Your task to perform on an android device: turn on the 24-hour format for clock Image 0: 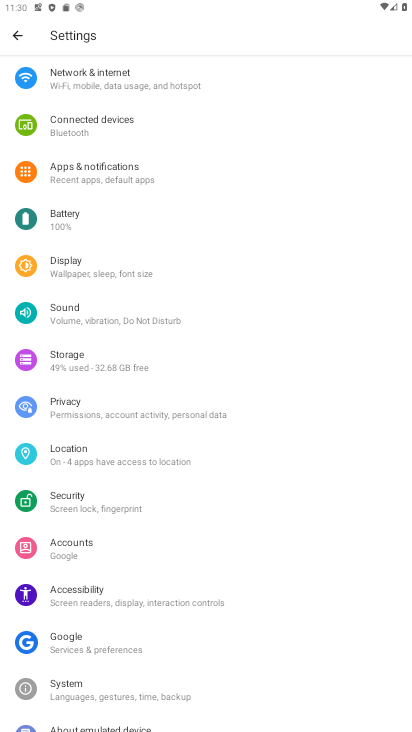
Step 0: press home button
Your task to perform on an android device: turn on the 24-hour format for clock Image 1: 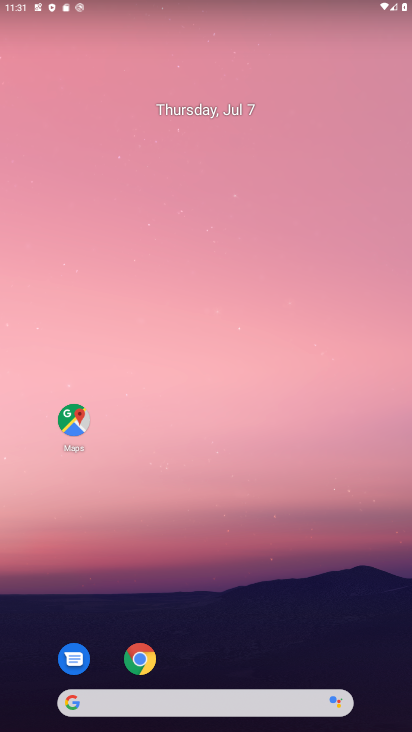
Step 1: drag from (262, 652) to (226, 117)
Your task to perform on an android device: turn on the 24-hour format for clock Image 2: 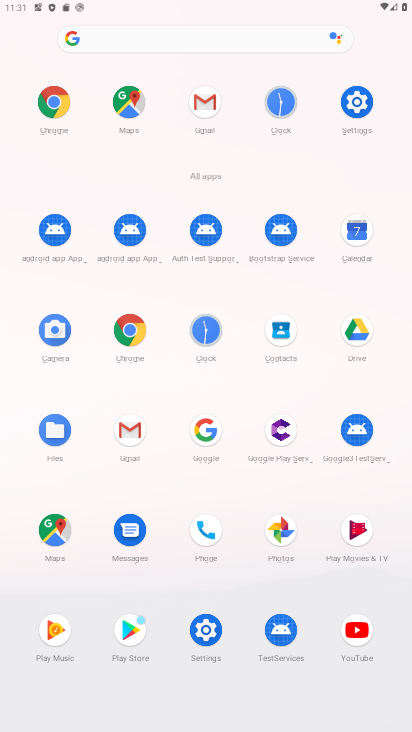
Step 2: click (277, 94)
Your task to perform on an android device: turn on the 24-hour format for clock Image 3: 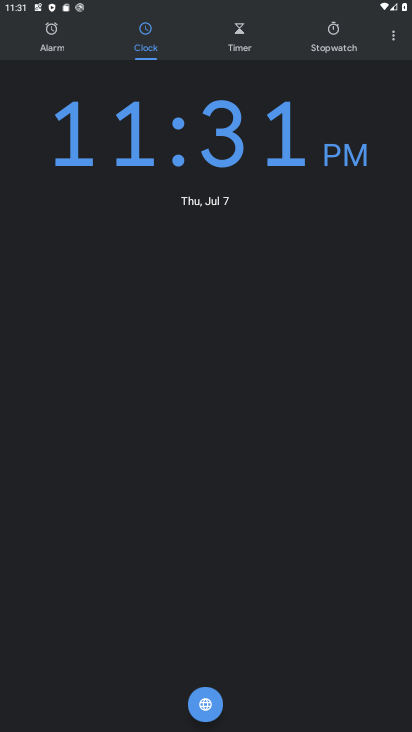
Step 3: click (395, 46)
Your task to perform on an android device: turn on the 24-hour format for clock Image 4: 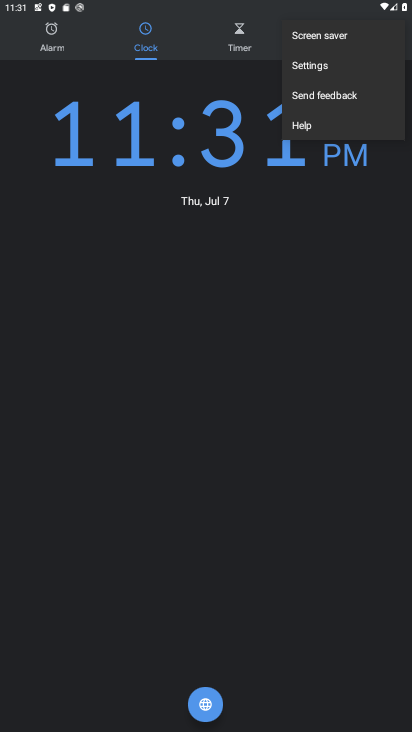
Step 4: click (312, 77)
Your task to perform on an android device: turn on the 24-hour format for clock Image 5: 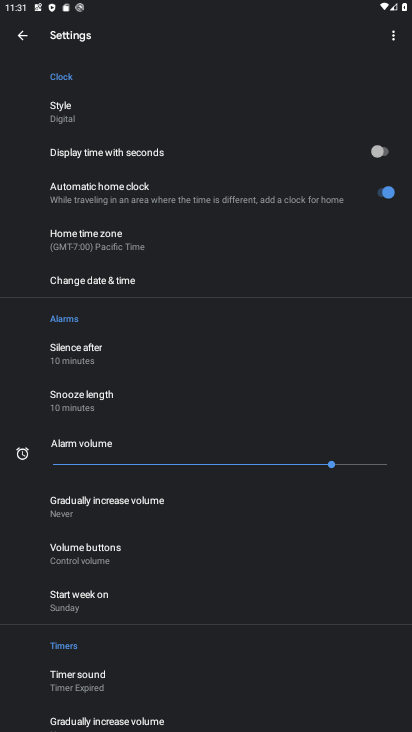
Step 5: click (127, 284)
Your task to perform on an android device: turn on the 24-hour format for clock Image 6: 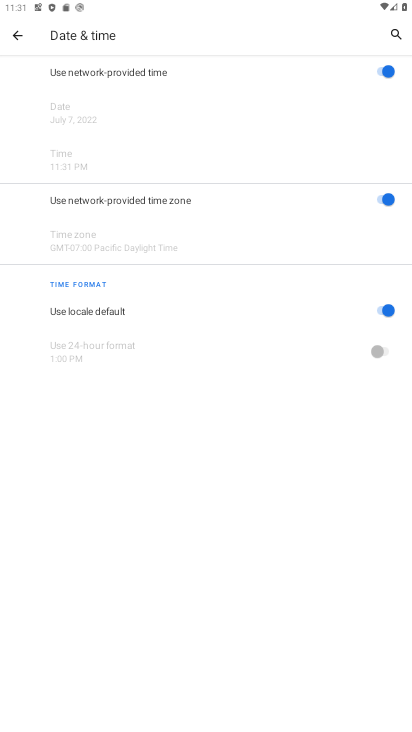
Step 6: click (381, 309)
Your task to perform on an android device: turn on the 24-hour format for clock Image 7: 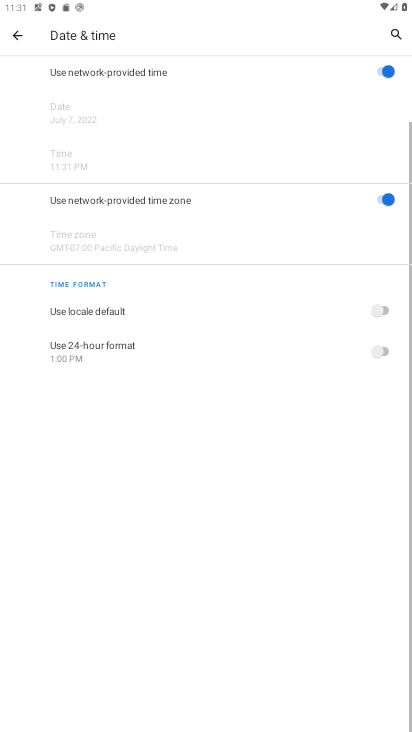
Step 7: click (386, 351)
Your task to perform on an android device: turn on the 24-hour format for clock Image 8: 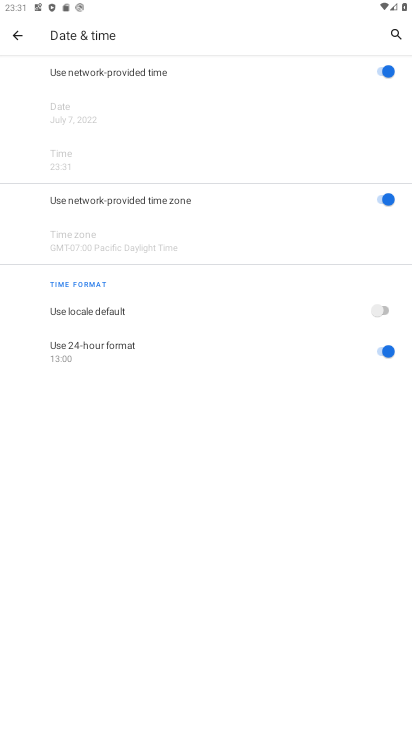
Step 8: task complete